Your task to perform on an android device: Search for vegetarian restaurants on Maps Image 0: 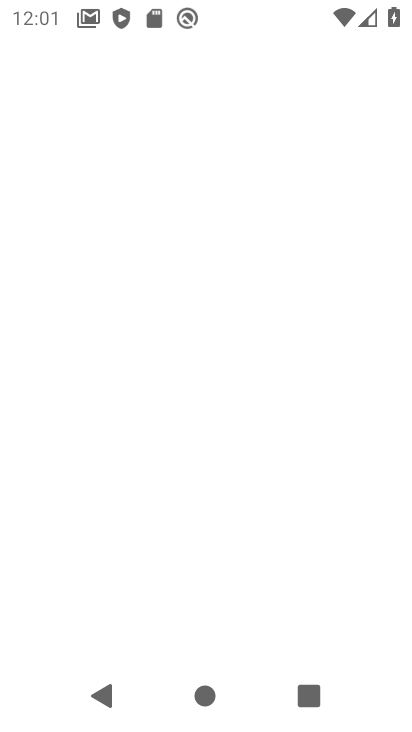
Step 0: drag from (277, 209) to (246, 64)
Your task to perform on an android device: Search for vegetarian restaurants on Maps Image 1: 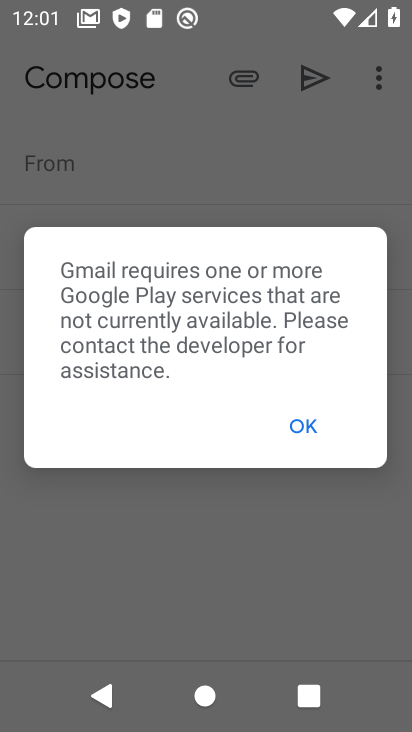
Step 1: press back button
Your task to perform on an android device: Search for vegetarian restaurants on Maps Image 2: 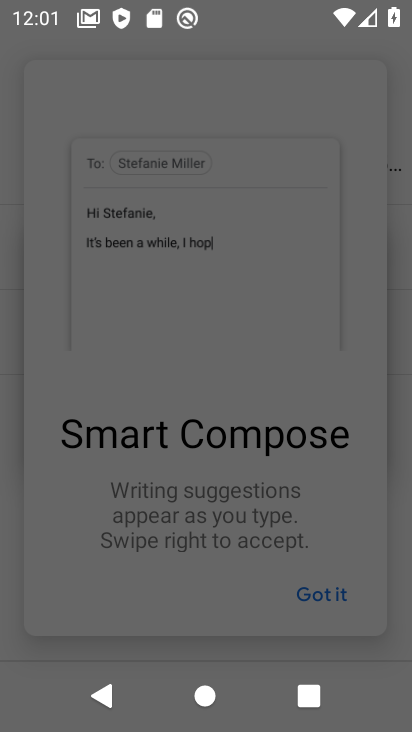
Step 2: press home button
Your task to perform on an android device: Search for vegetarian restaurants on Maps Image 3: 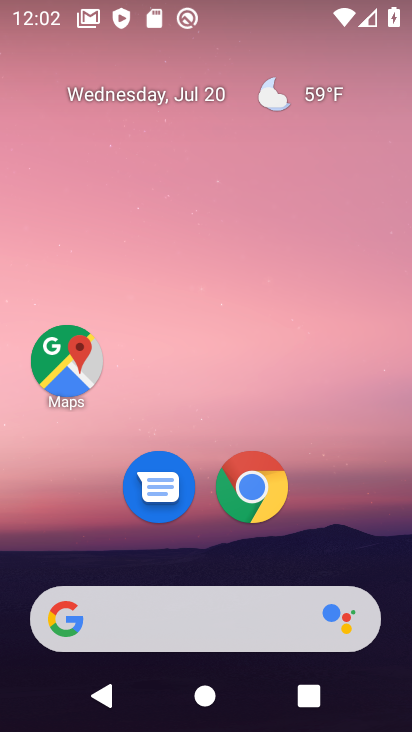
Step 3: click (51, 374)
Your task to perform on an android device: Search for vegetarian restaurants on Maps Image 4: 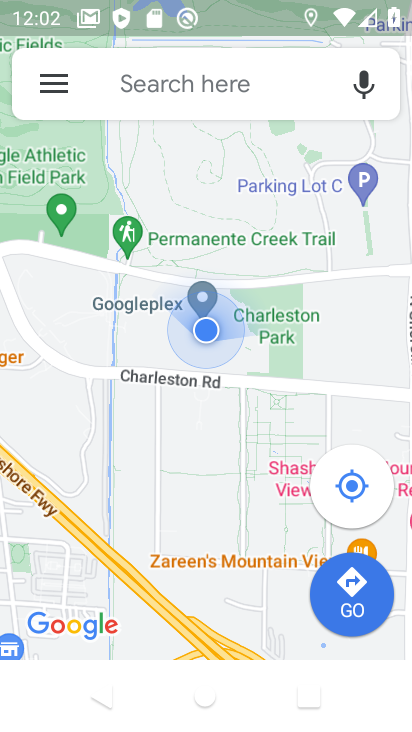
Step 4: click (138, 84)
Your task to perform on an android device: Search for vegetarian restaurants on Maps Image 5: 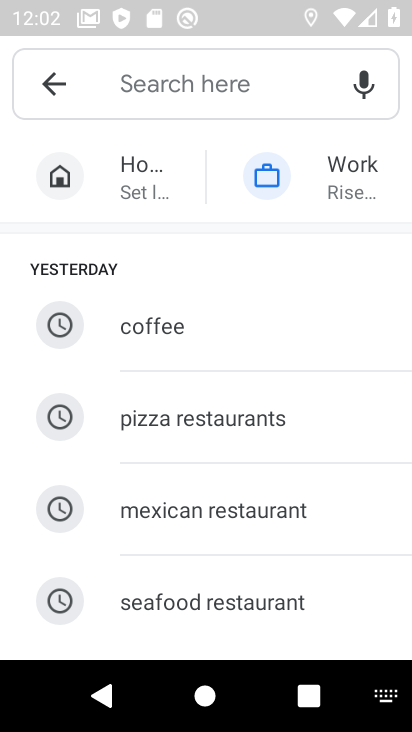
Step 5: drag from (184, 575) to (285, 246)
Your task to perform on an android device: Search for vegetarian restaurants on Maps Image 6: 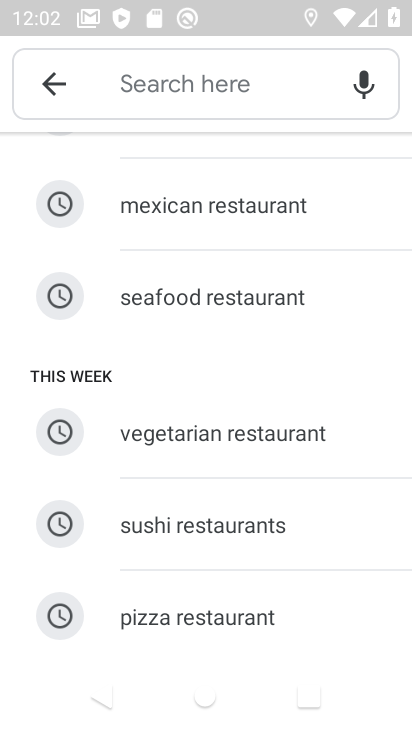
Step 6: click (197, 448)
Your task to perform on an android device: Search for vegetarian restaurants on Maps Image 7: 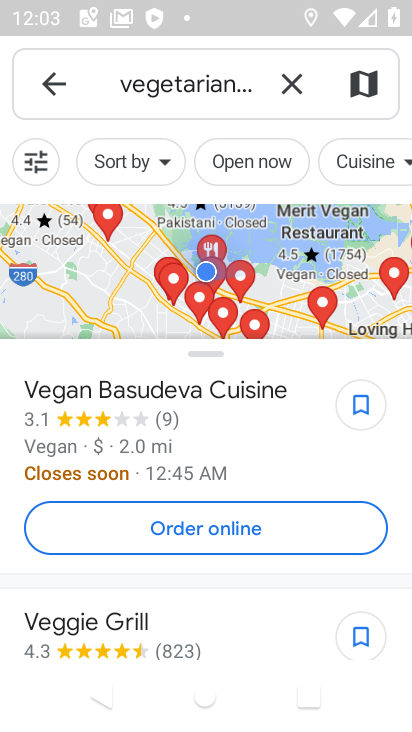
Step 7: task complete